Your task to perform on an android device: Open Yahoo.com Image 0: 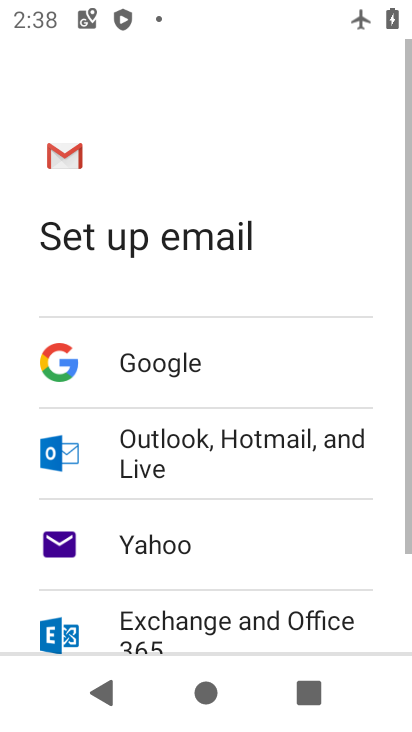
Step 0: press home button
Your task to perform on an android device: Open Yahoo.com Image 1: 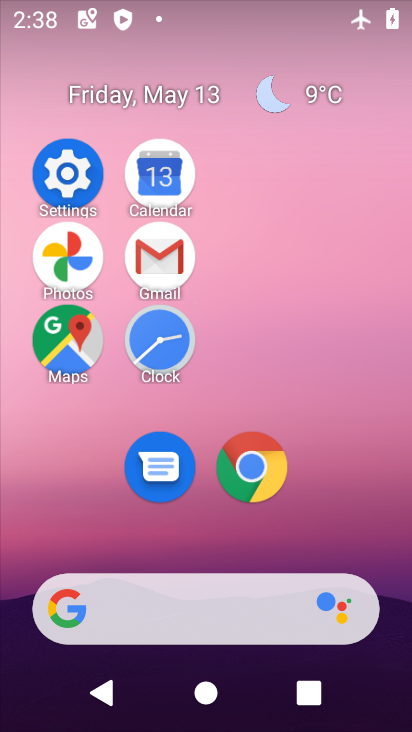
Step 1: click (248, 466)
Your task to perform on an android device: Open Yahoo.com Image 2: 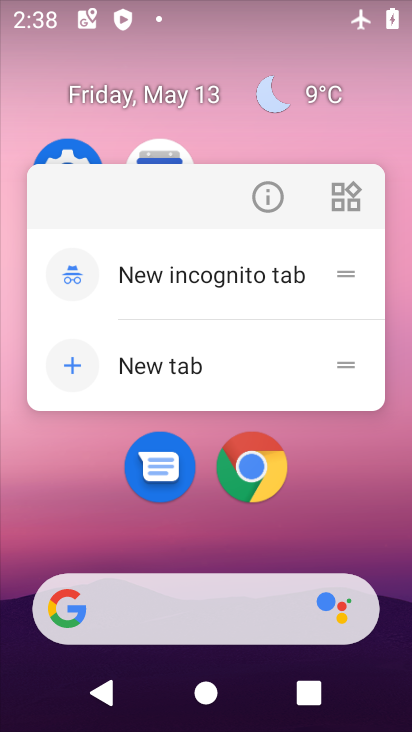
Step 2: click (247, 465)
Your task to perform on an android device: Open Yahoo.com Image 3: 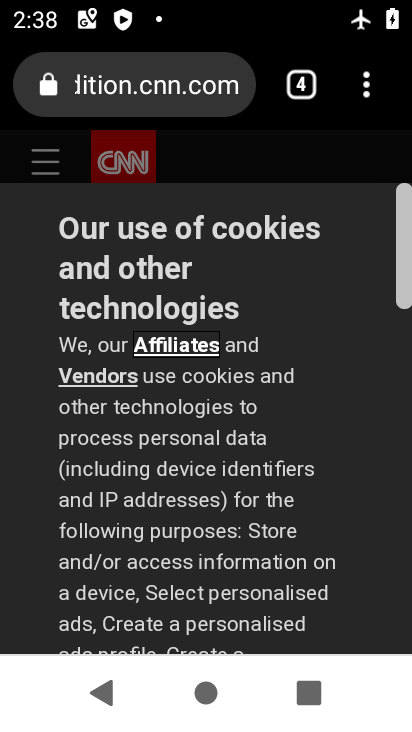
Step 3: click (318, 96)
Your task to perform on an android device: Open Yahoo.com Image 4: 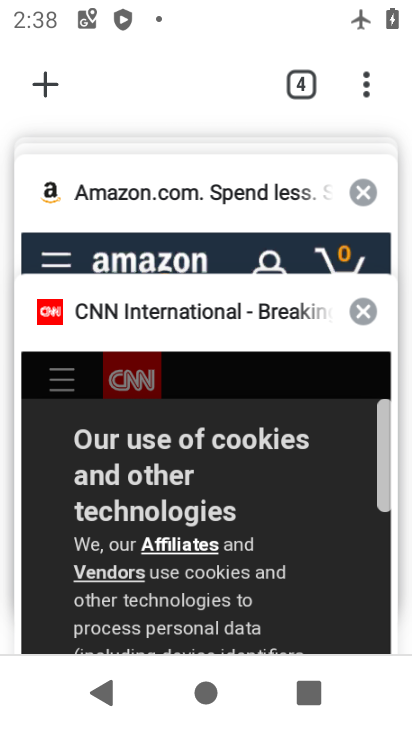
Step 4: drag from (229, 228) to (194, 536)
Your task to perform on an android device: Open Yahoo.com Image 5: 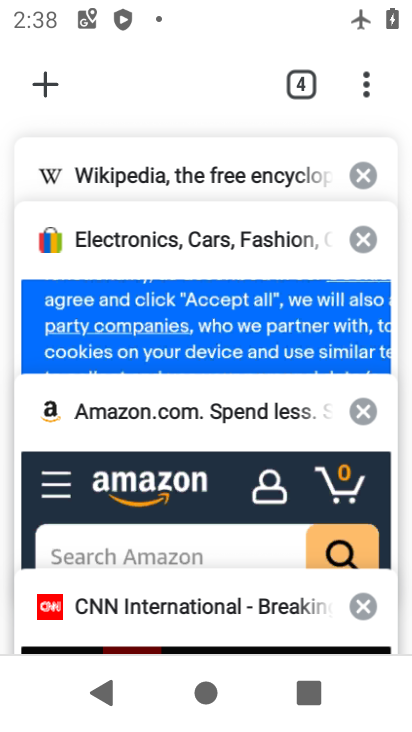
Step 5: drag from (161, 177) to (112, 548)
Your task to perform on an android device: Open Yahoo.com Image 6: 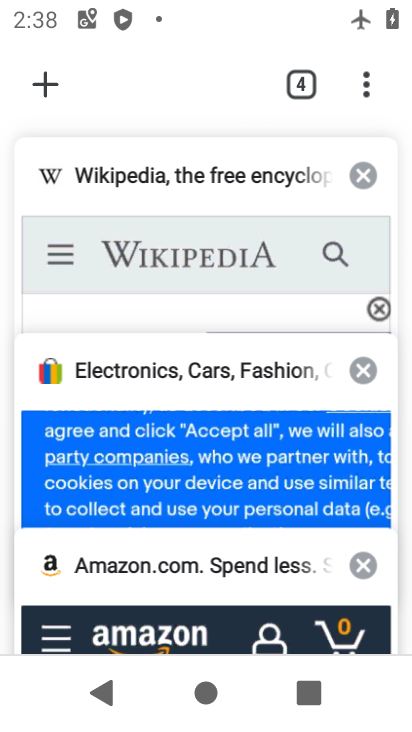
Step 6: click (46, 81)
Your task to perform on an android device: Open Yahoo.com Image 7: 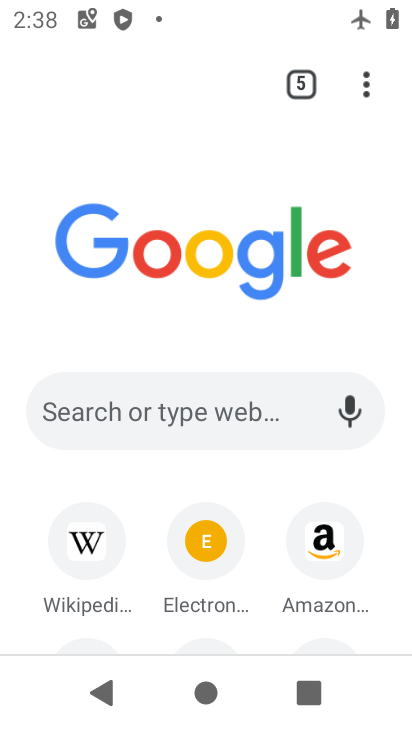
Step 7: drag from (237, 487) to (245, 199)
Your task to perform on an android device: Open Yahoo.com Image 8: 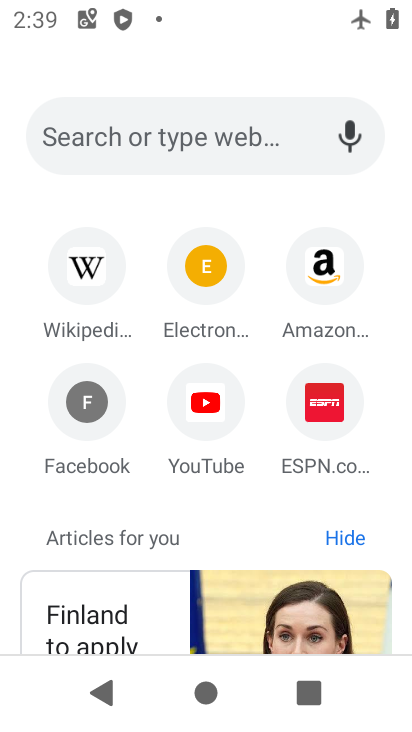
Step 8: click (178, 136)
Your task to perform on an android device: Open Yahoo.com Image 9: 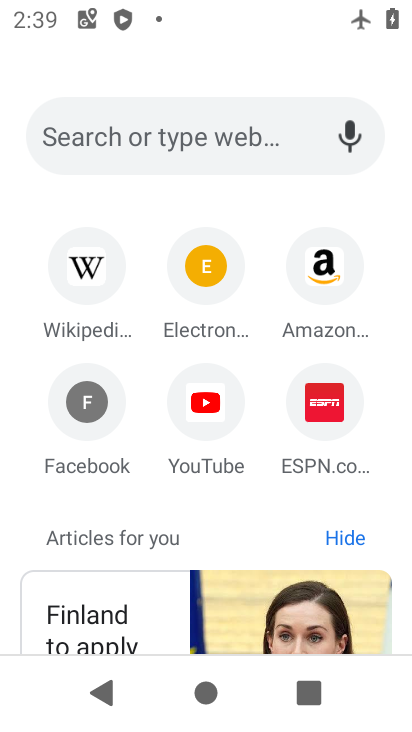
Step 9: click (233, 147)
Your task to perform on an android device: Open Yahoo.com Image 10: 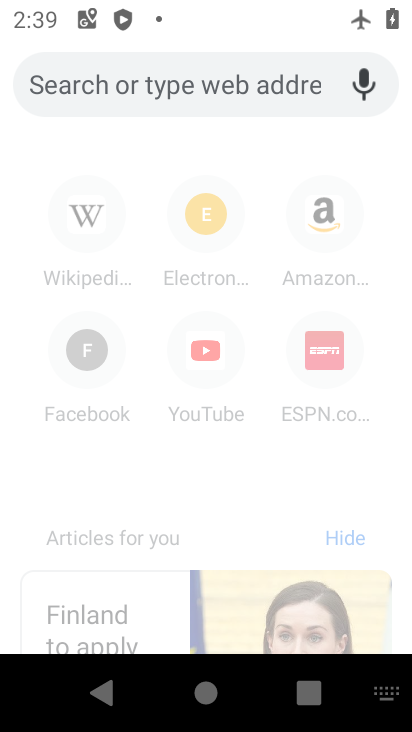
Step 10: type "yahoo"
Your task to perform on an android device: Open Yahoo.com Image 11: 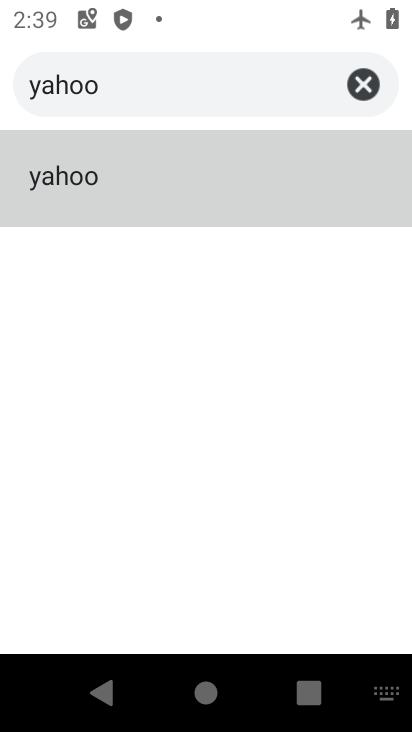
Step 11: click (117, 194)
Your task to perform on an android device: Open Yahoo.com Image 12: 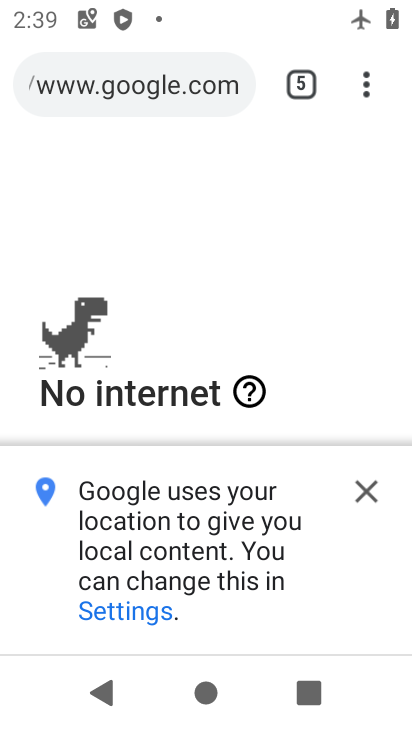
Step 12: task complete